Your task to perform on an android device: Turn on the flashlight Image 0: 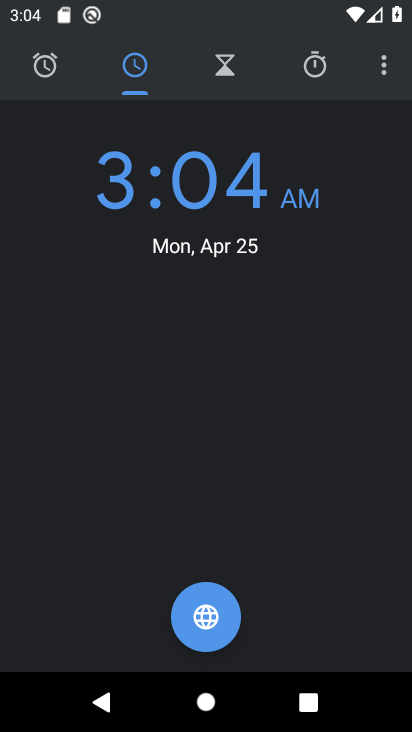
Step 0: press home button
Your task to perform on an android device: Turn on the flashlight Image 1: 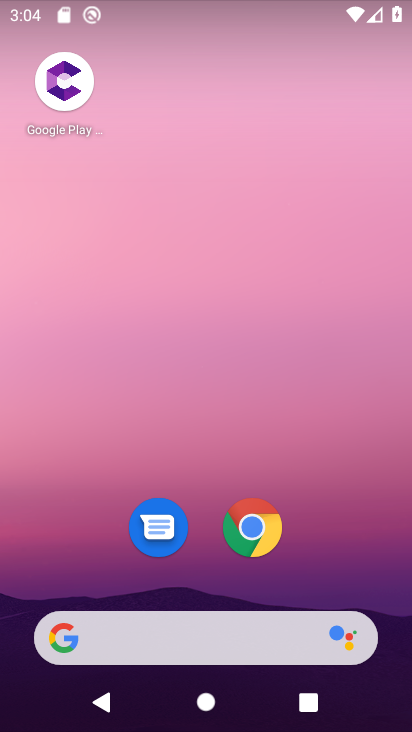
Step 1: drag from (223, 8) to (166, 447)
Your task to perform on an android device: Turn on the flashlight Image 2: 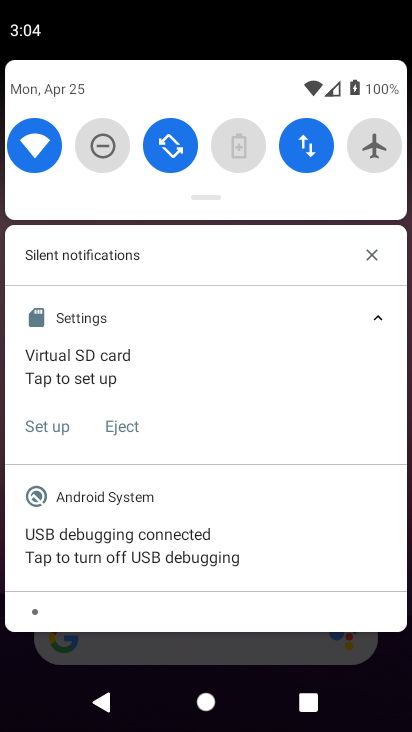
Step 2: drag from (207, 195) to (173, 495)
Your task to perform on an android device: Turn on the flashlight Image 3: 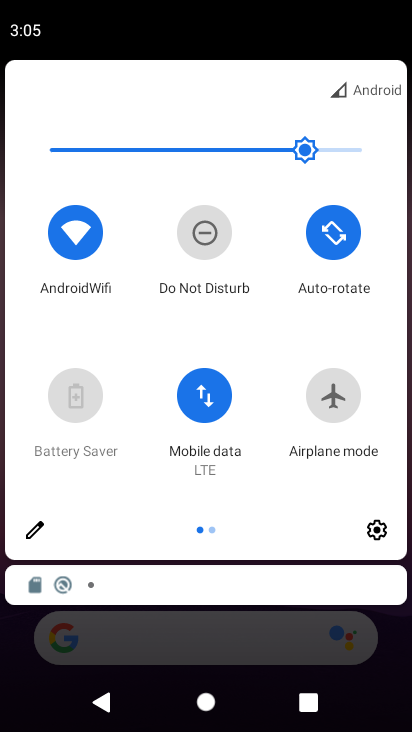
Step 3: click (26, 529)
Your task to perform on an android device: Turn on the flashlight Image 4: 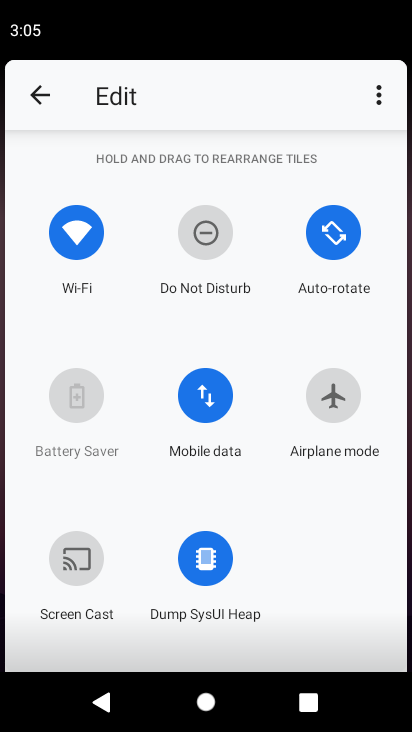
Step 4: task complete